Your task to perform on an android device: What's the price of the new iPhone Image 0: 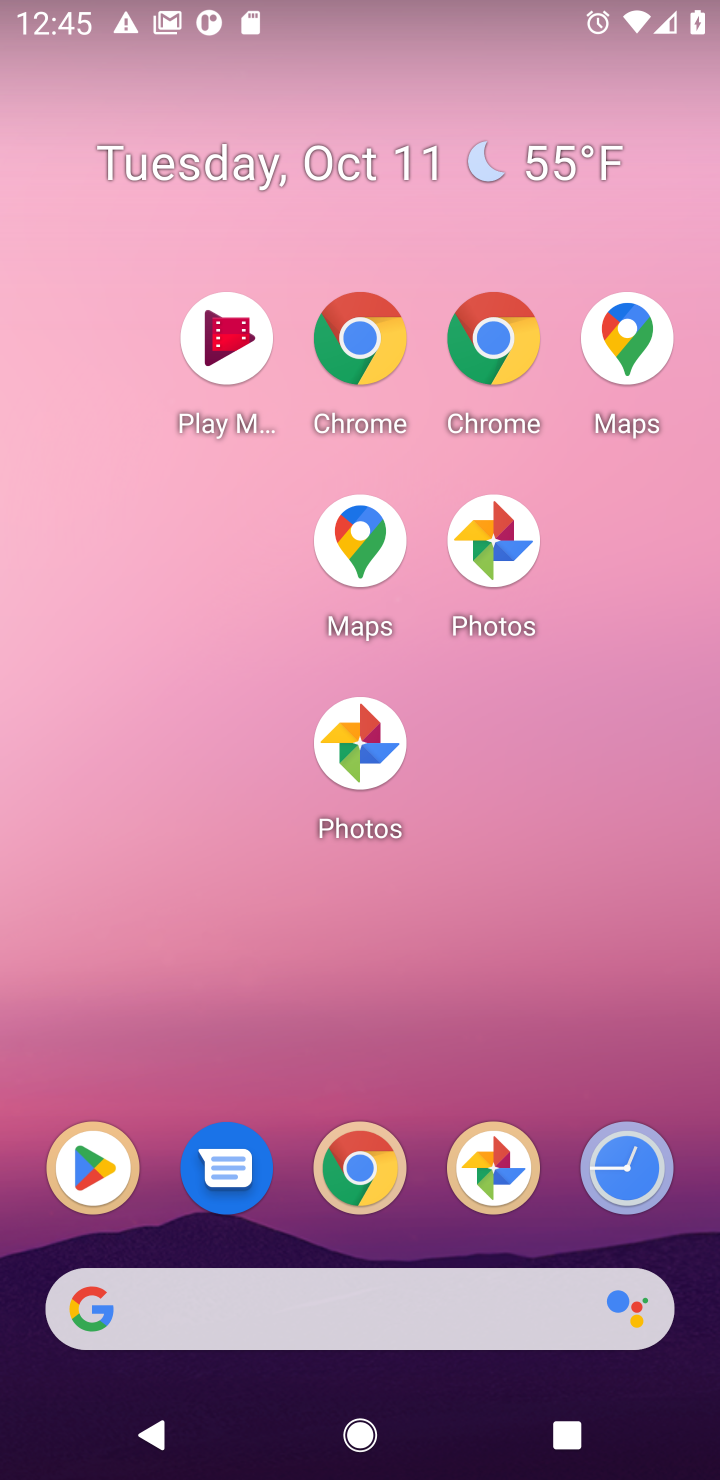
Step 0: click (505, 1351)
Your task to perform on an android device: What's the price of the new iPhone Image 1: 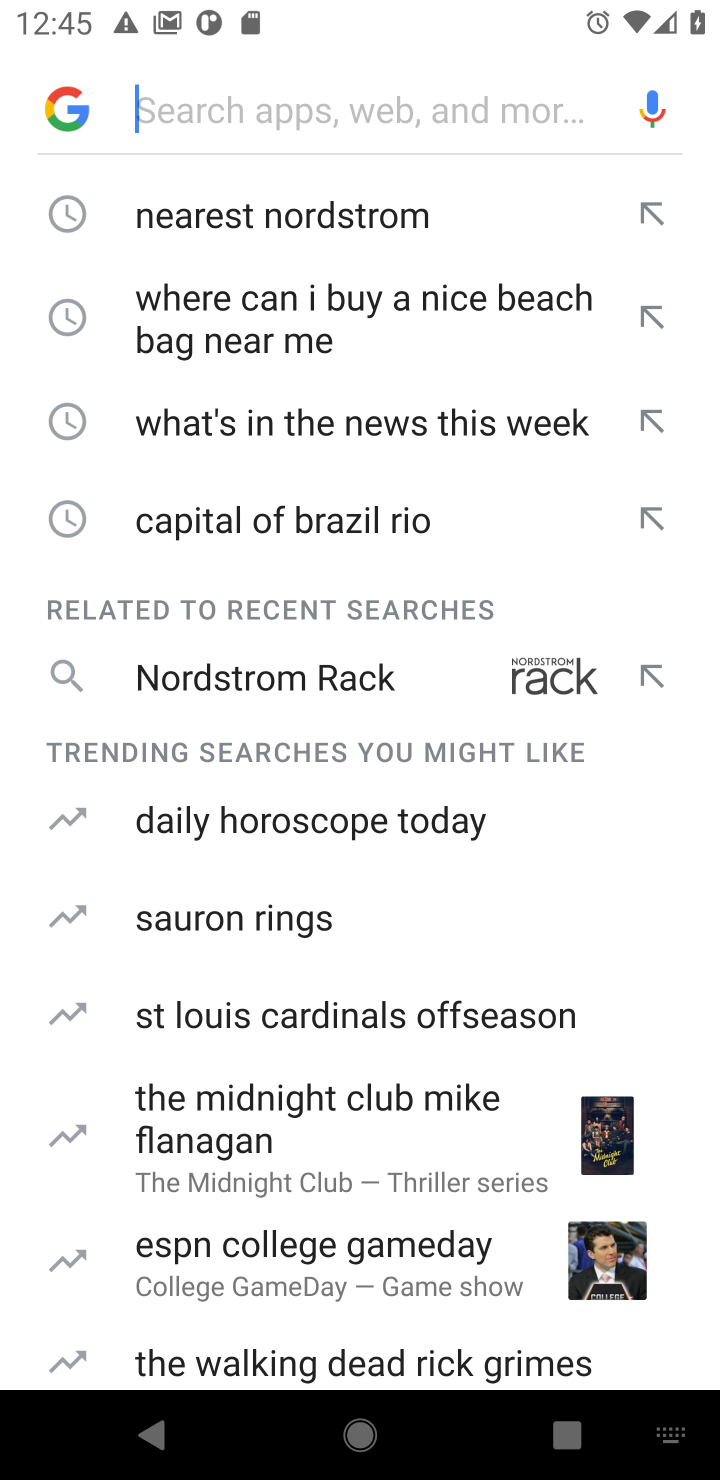
Step 1: type "price of the new iPhone"
Your task to perform on an android device: What's the price of the new iPhone Image 2: 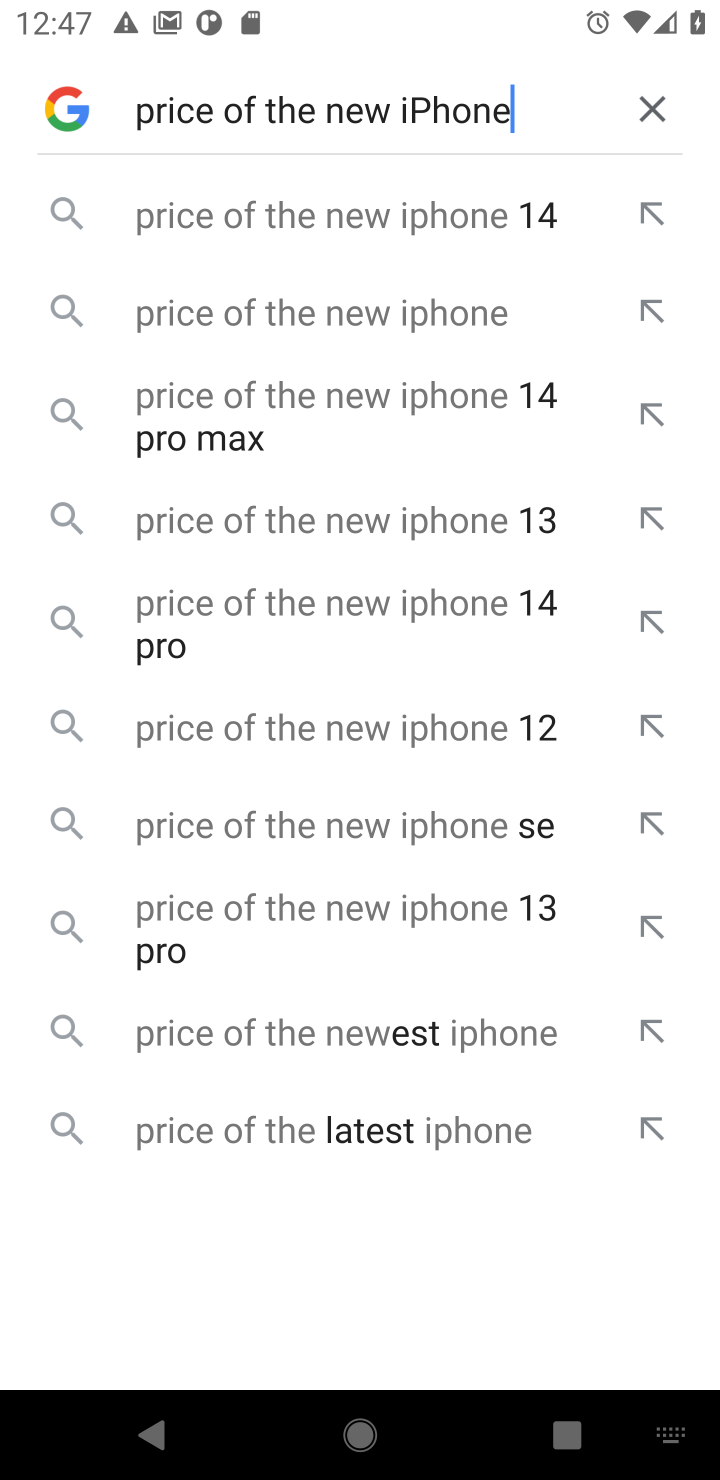
Step 2: click (495, 319)
Your task to perform on an android device: What's the price of the new iPhone Image 3: 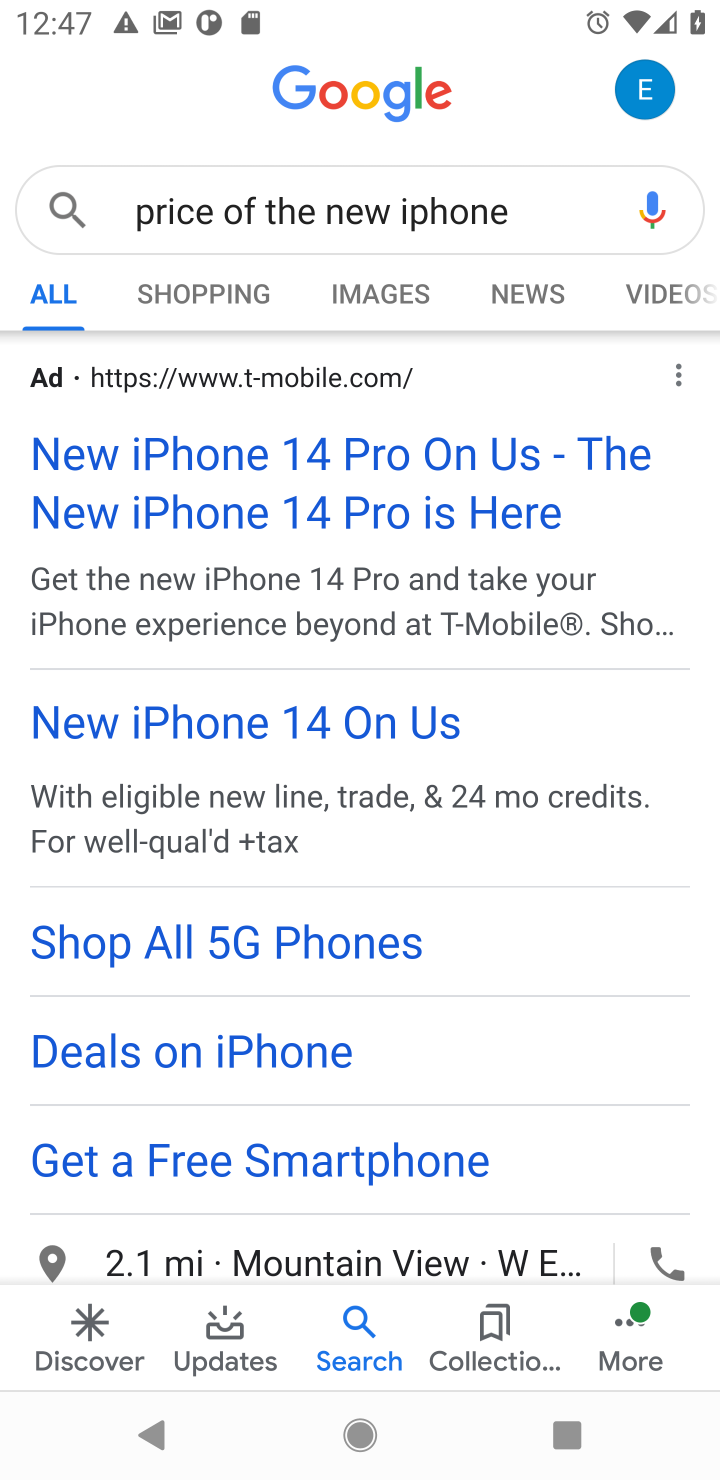
Step 3: task complete